Your task to perform on an android device: delete the emails in spam in the gmail app Image 0: 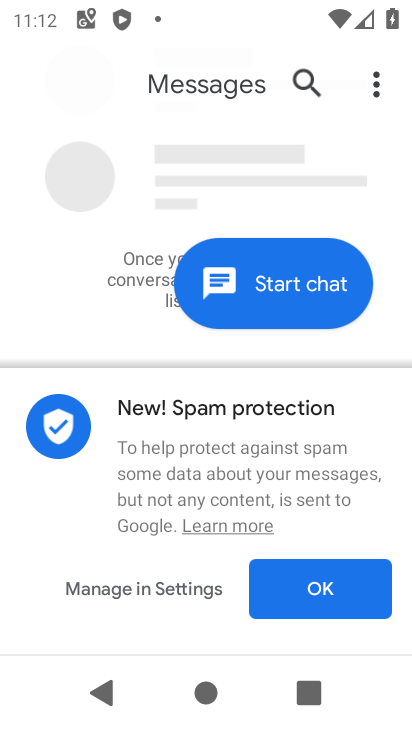
Step 0: click (314, 597)
Your task to perform on an android device: delete the emails in spam in the gmail app Image 1: 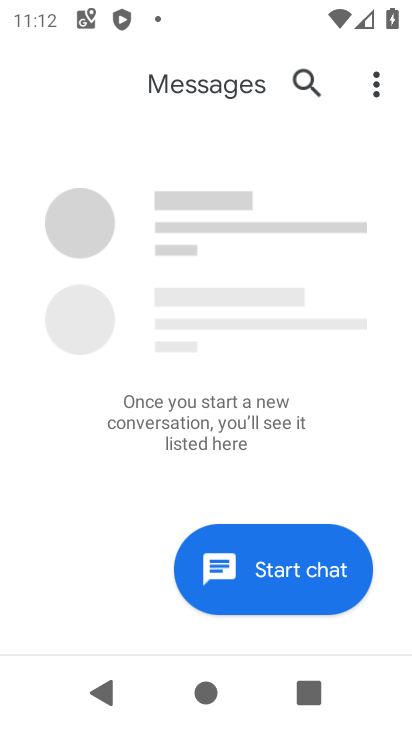
Step 1: press home button
Your task to perform on an android device: delete the emails in spam in the gmail app Image 2: 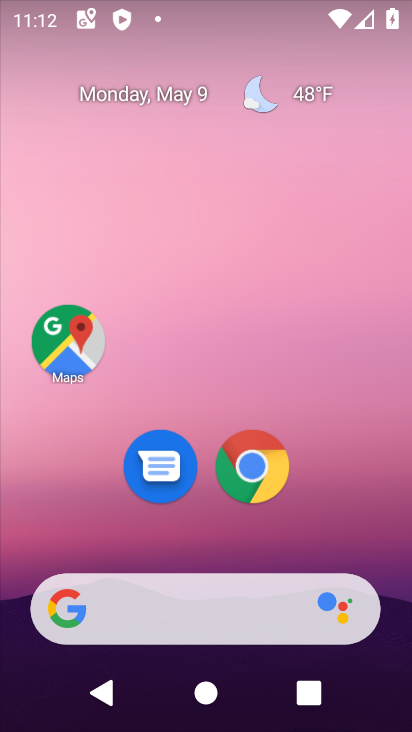
Step 2: drag from (392, 617) to (332, 84)
Your task to perform on an android device: delete the emails in spam in the gmail app Image 3: 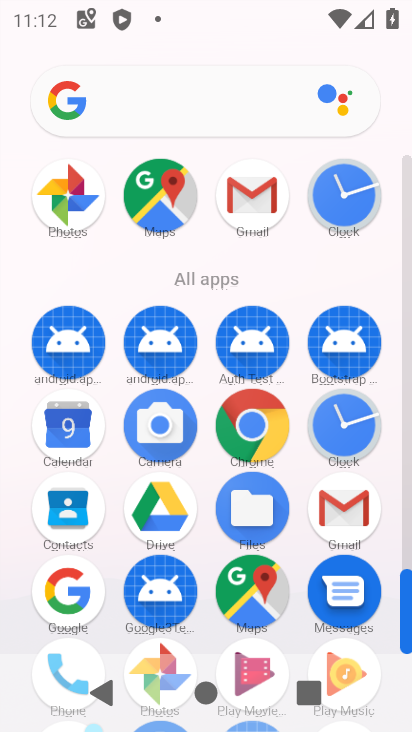
Step 3: click (340, 503)
Your task to perform on an android device: delete the emails in spam in the gmail app Image 4: 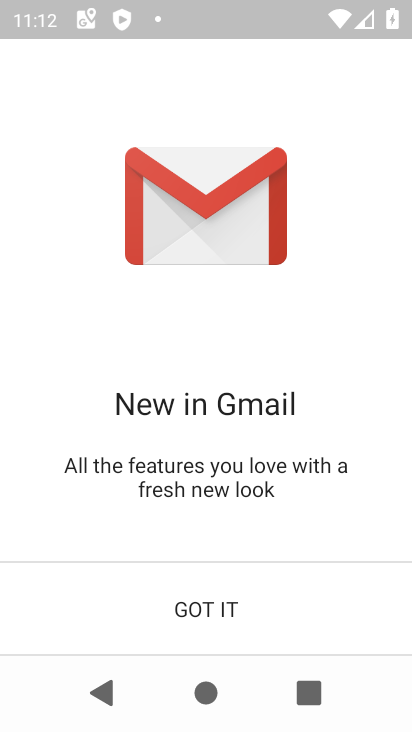
Step 4: click (194, 609)
Your task to perform on an android device: delete the emails in spam in the gmail app Image 5: 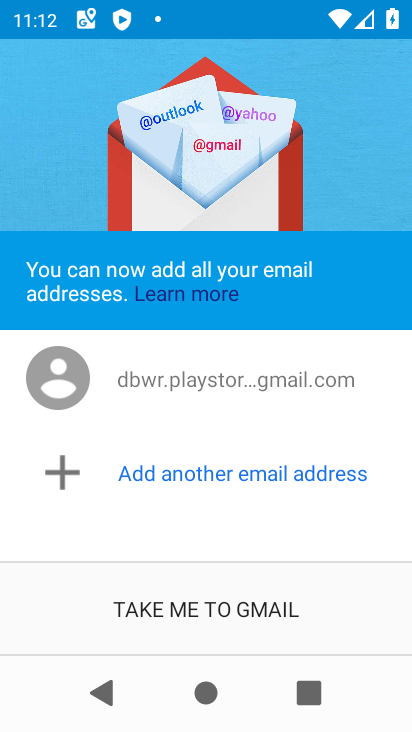
Step 5: click (179, 604)
Your task to perform on an android device: delete the emails in spam in the gmail app Image 6: 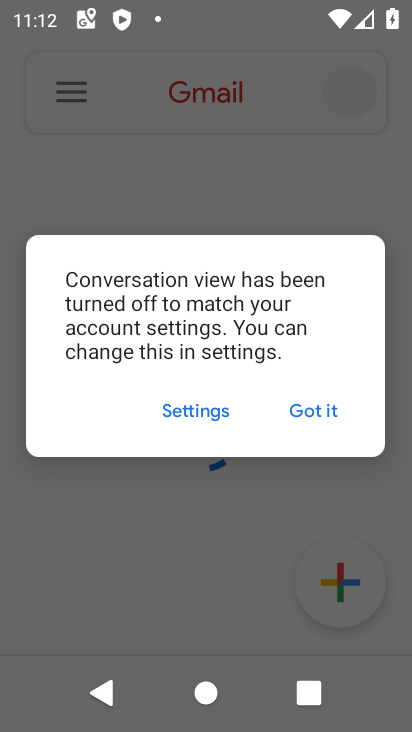
Step 6: click (313, 405)
Your task to perform on an android device: delete the emails in spam in the gmail app Image 7: 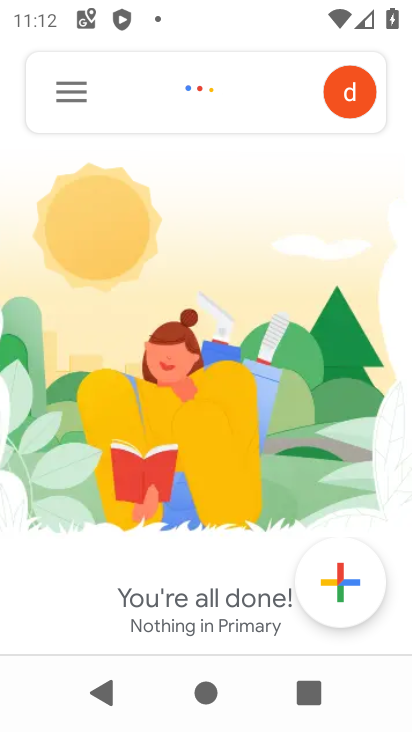
Step 7: click (66, 91)
Your task to perform on an android device: delete the emails in spam in the gmail app Image 8: 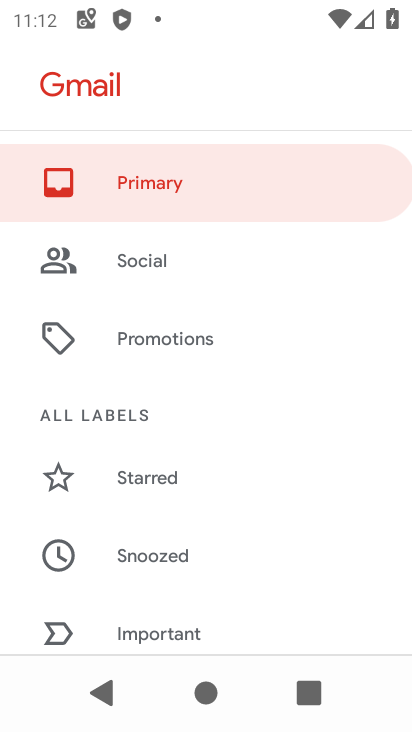
Step 8: drag from (266, 584) to (322, 78)
Your task to perform on an android device: delete the emails in spam in the gmail app Image 9: 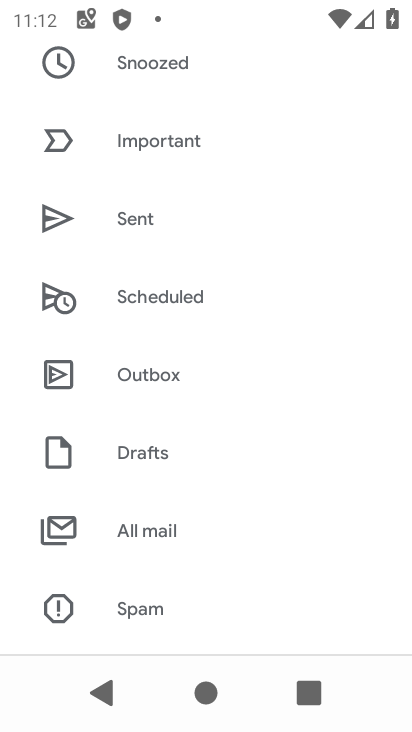
Step 9: drag from (234, 613) to (295, 84)
Your task to perform on an android device: delete the emails in spam in the gmail app Image 10: 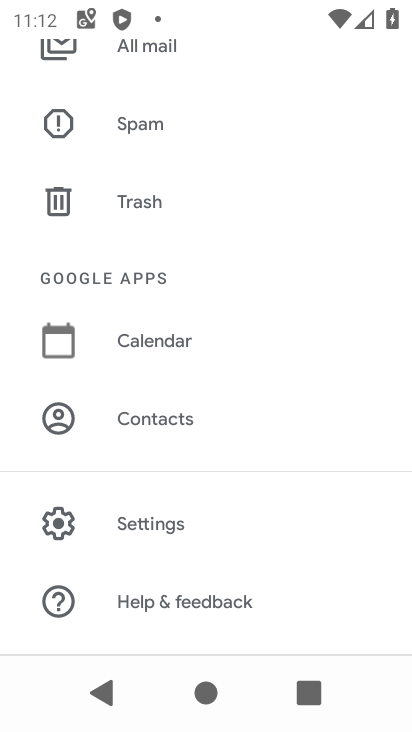
Step 10: click (133, 121)
Your task to perform on an android device: delete the emails in spam in the gmail app Image 11: 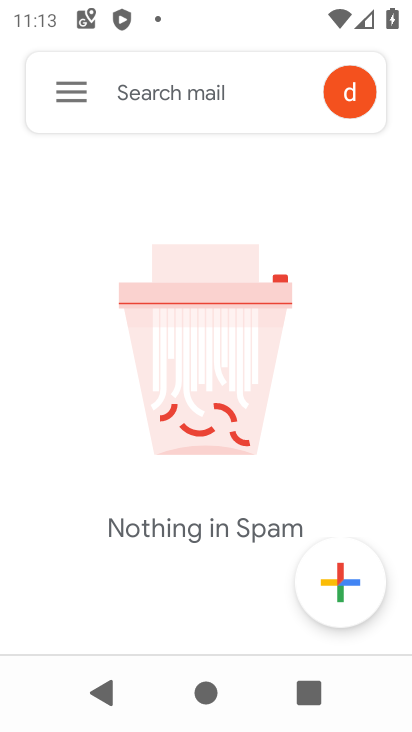
Step 11: task complete